Your task to perform on an android device: change the clock display to analog Image 0: 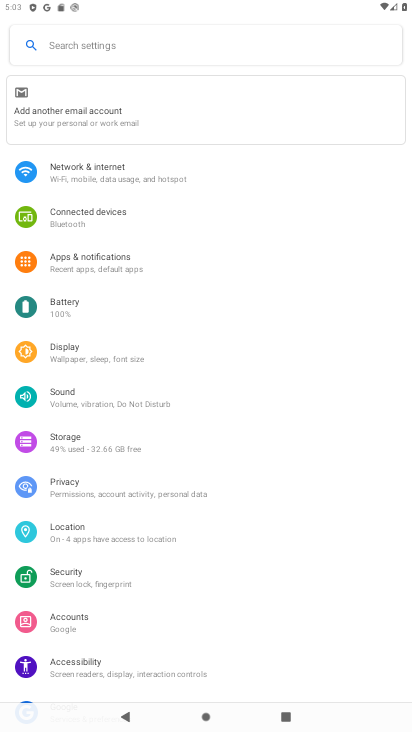
Step 0: press home button
Your task to perform on an android device: change the clock display to analog Image 1: 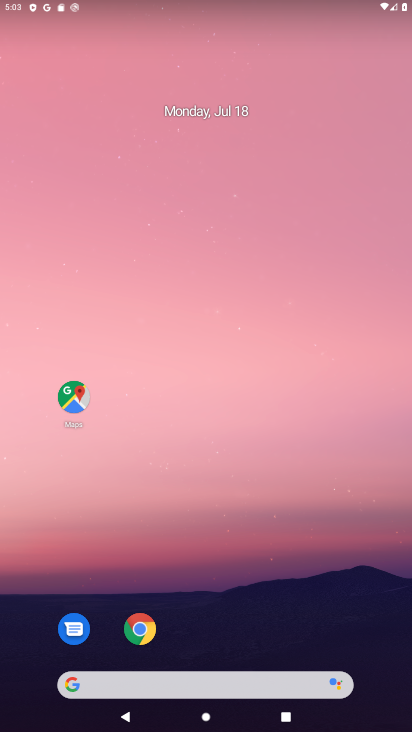
Step 1: drag from (286, 576) to (254, 109)
Your task to perform on an android device: change the clock display to analog Image 2: 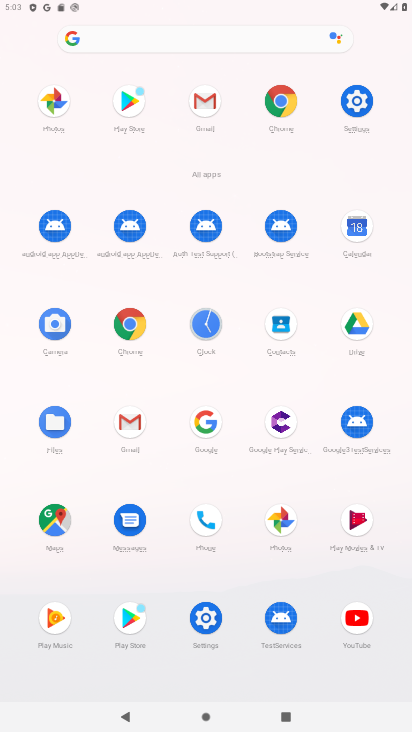
Step 2: click (210, 320)
Your task to perform on an android device: change the clock display to analog Image 3: 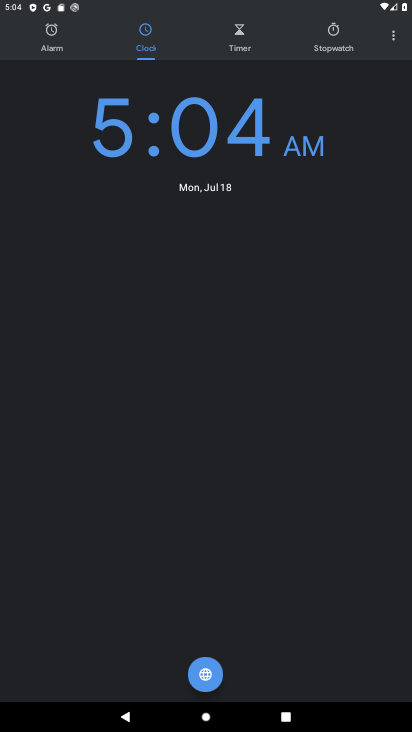
Step 3: click (400, 34)
Your task to perform on an android device: change the clock display to analog Image 4: 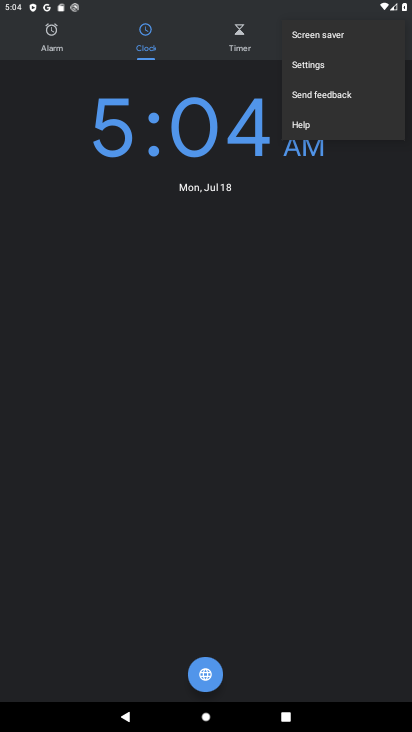
Step 4: click (327, 73)
Your task to perform on an android device: change the clock display to analog Image 5: 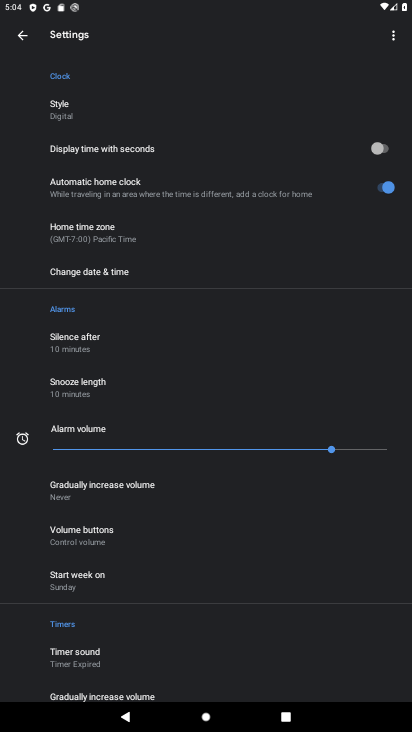
Step 5: click (72, 111)
Your task to perform on an android device: change the clock display to analog Image 6: 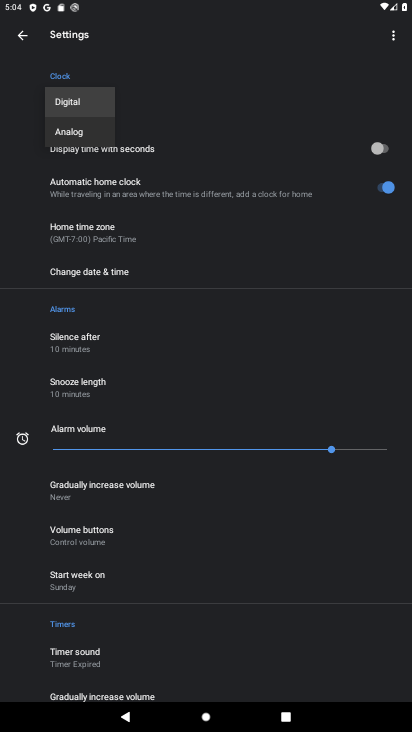
Step 6: click (85, 139)
Your task to perform on an android device: change the clock display to analog Image 7: 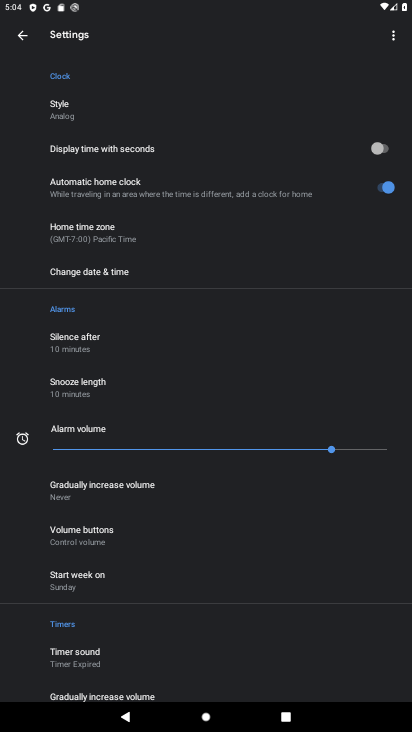
Step 7: task complete